Your task to perform on an android device: turn on translation in the chrome app Image 0: 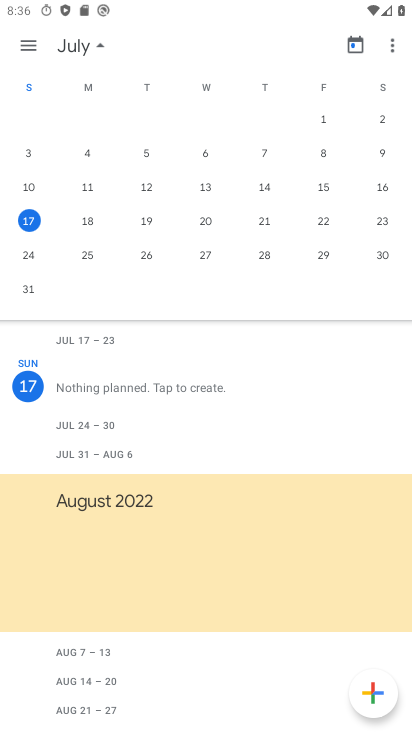
Step 0: press home button
Your task to perform on an android device: turn on translation in the chrome app Image 1: 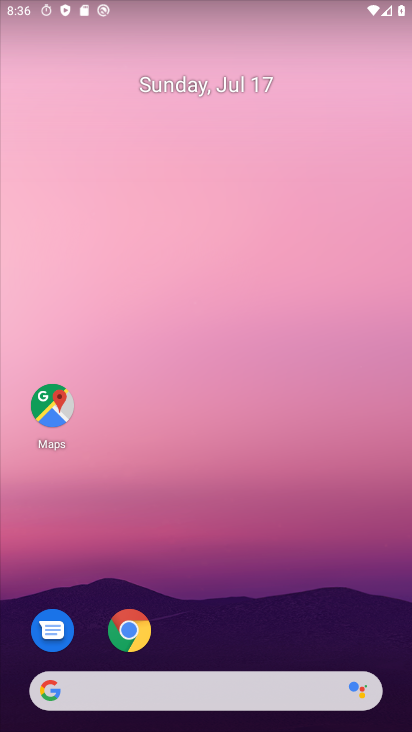
Step 1: click (126, 614)
Your task to perform on an android device: turn on translation in the chrome app Image 2: 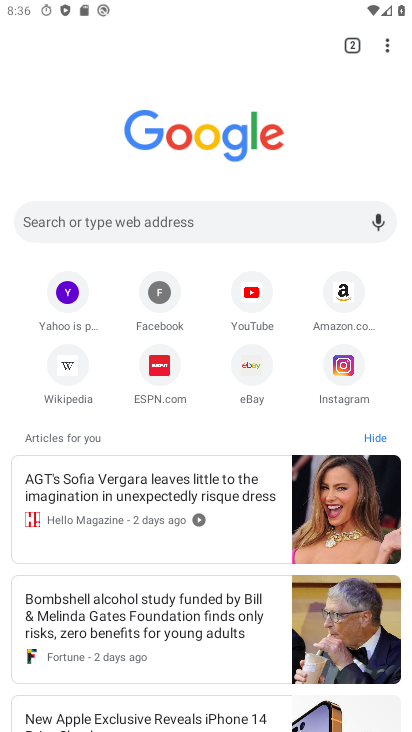
Step 2: click (386, 46)
Your task to perform on an android device: turn on translation in the chrome app Image 3: 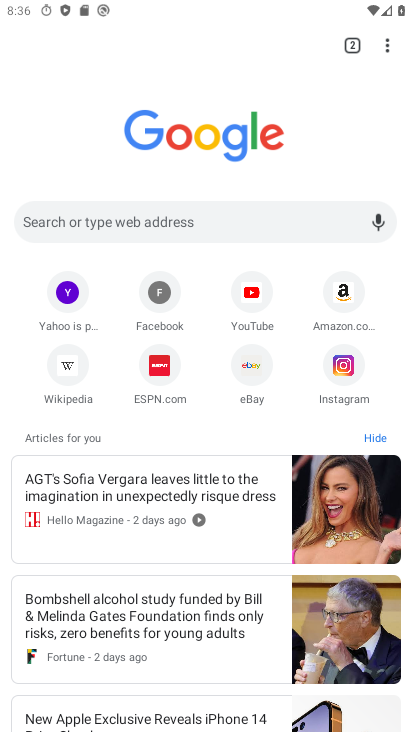
Step 3: click (386, 38)
Your task to perform on an android device: turn on translation in the chrome app Image 4: 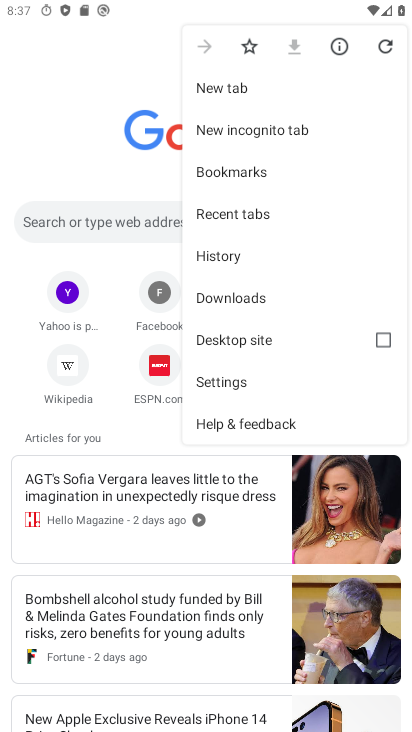
Step 4: click (220, 384)
Your task to perform on an android device: turn on translation in the chrome app Image 5: 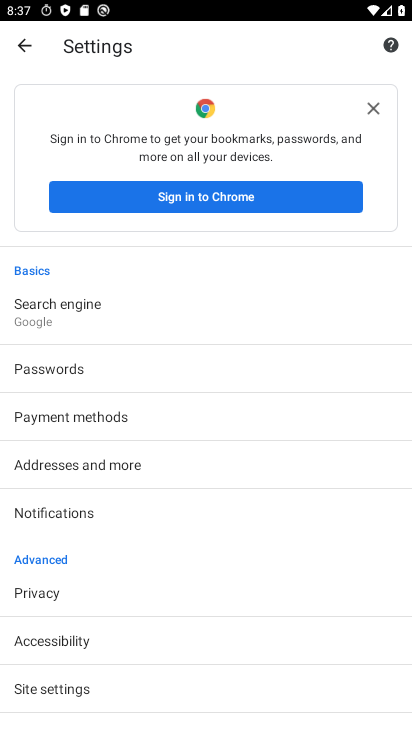
Step 5: drag from (152, 531) to (187, 286)
Your task to perform on an android device: turn on translation in the chrome app Image 6: 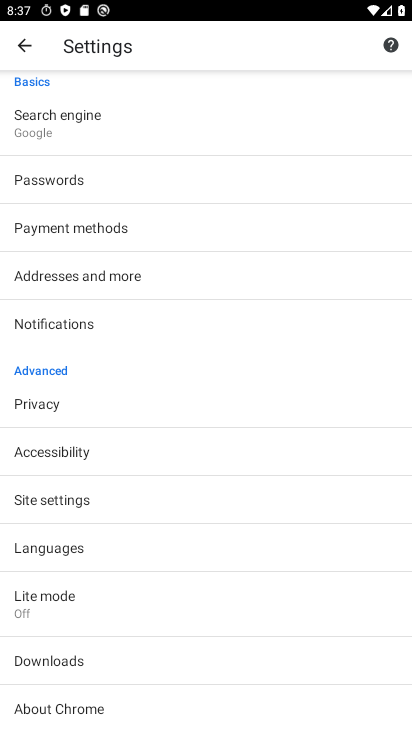
Step 6: click (80, 553)
Your task to perform on an android device: turn on translation in the chrome app Image 7: 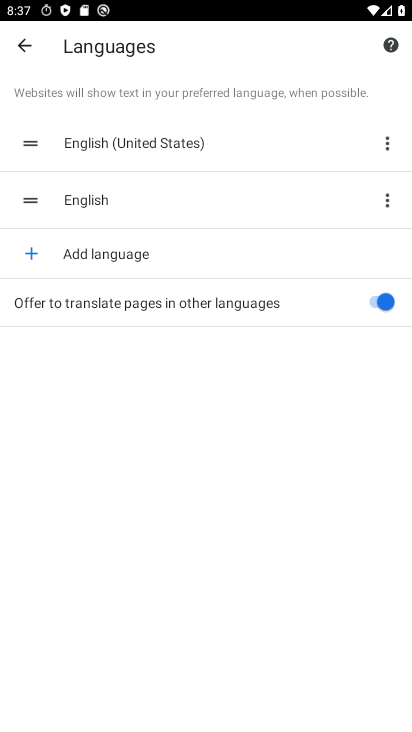
Step 7: task complete